Your task to perform on an android device: Open Reddit.com Image 0: 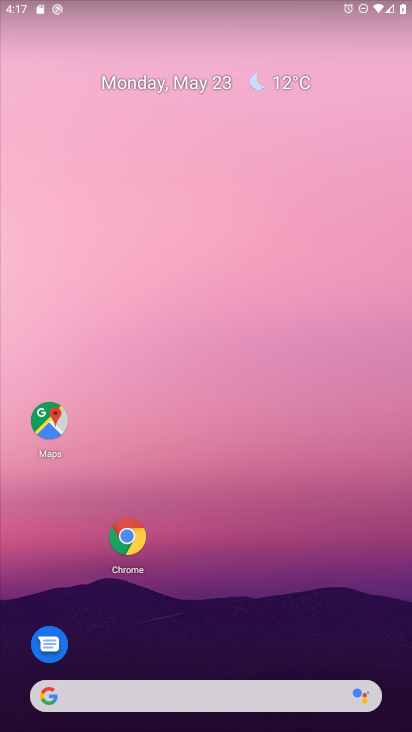
Step 0: click (133, 536)
Your task to perform on an android device: Open Reddit.com Image 1: 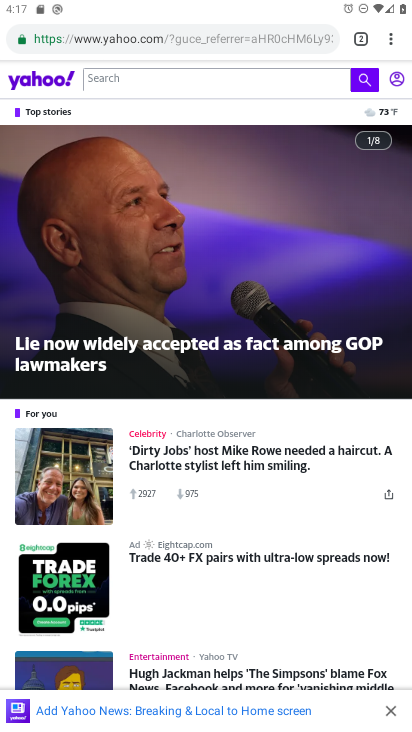
Step 1: click (212, 46)
Your task to perform on an android device: Open Reddit.com Image 2: 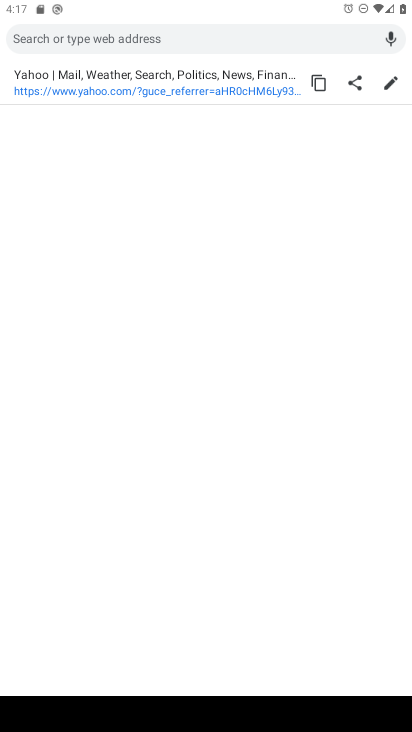
Step 2: type "reddit.com"
Your task to perform on an android device: Open Reddit.com Image 3: 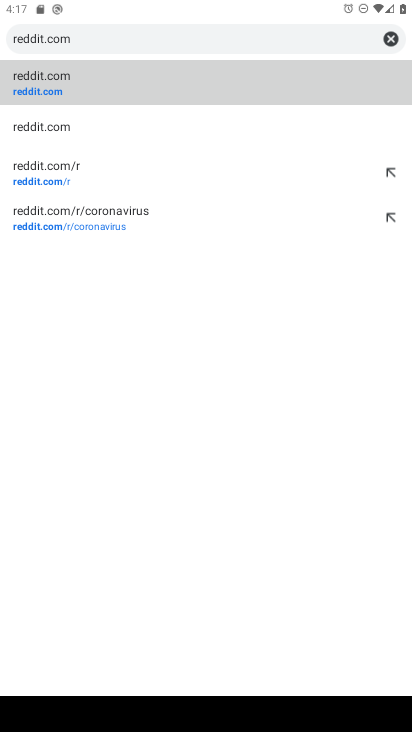
Step 3: click (45, 89)
Your task to perform on an android device: Open Reddit.com Image 4: 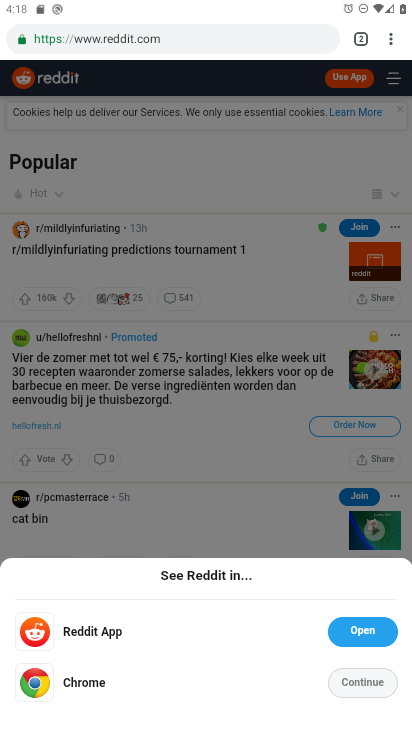
Step 4: task complete